Your task to perform on an android device: change alarm snooze length Image 0: 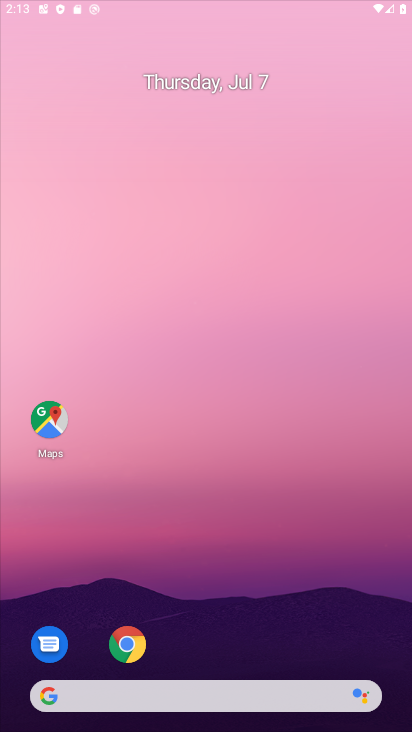
Step 0: press home button
Your task to perform on an android device: change alarm snooze length Image 1: 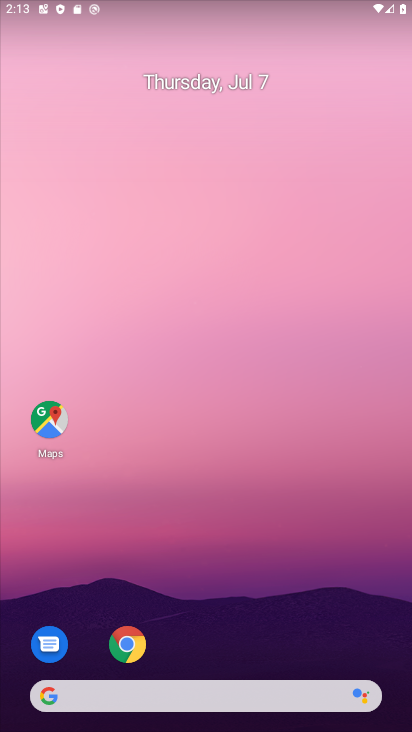
Step 1: drag from (246, 665) to (186, 235)
Your task to perform on an android device: change alarm snooze length Image 2: 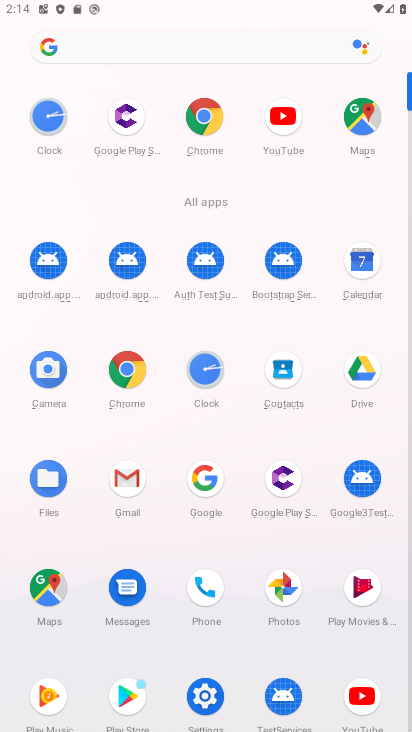
Step 2: click (196, 371)
Your task to perform on an android device: change alarm snooze length Image 3: 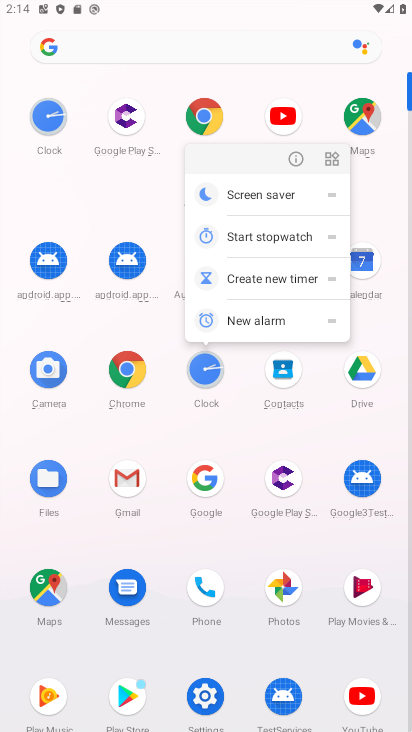
Step 3: click (211, 370)
Your task to perform on an android device: change alarm snooze length Image 4: 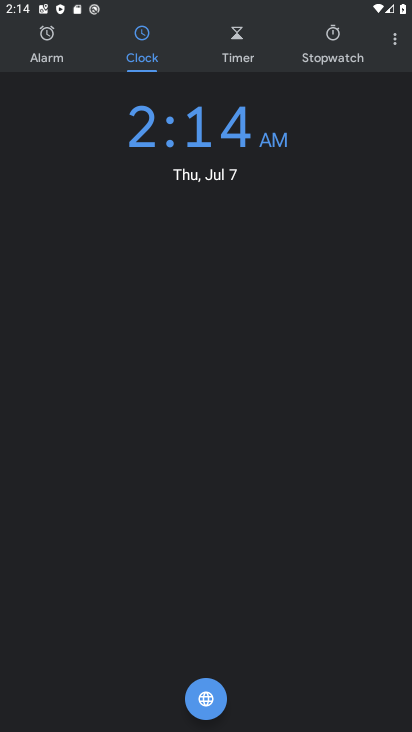
Step 4: click (393, 40)
Your task to perform on an android device: change alarm snooze length Image 5: 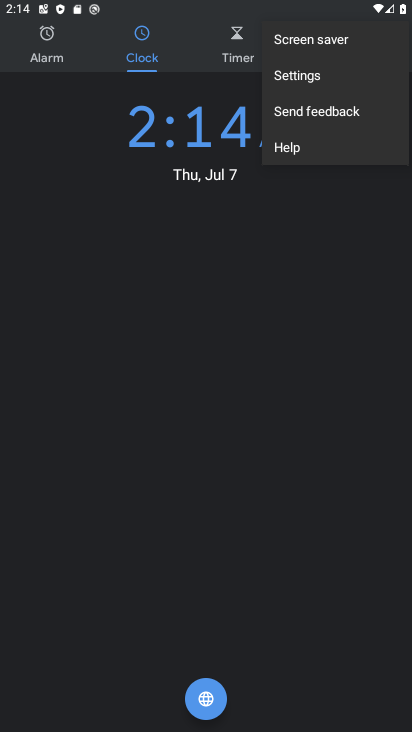
Step 5: click (299, 78)
Your task to perform on an android device: change alarm snooze length Image 6: 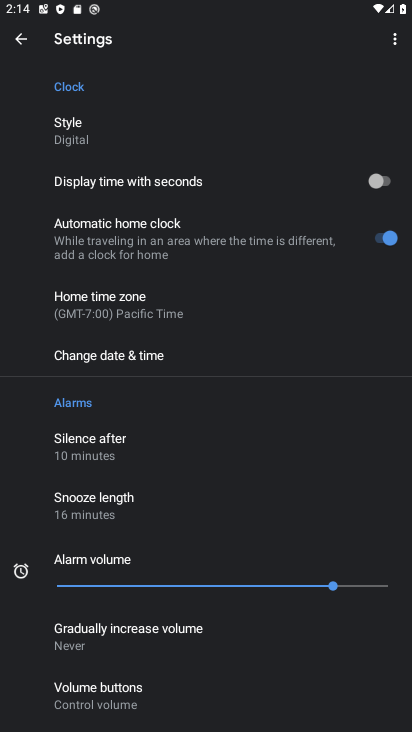
Step 6: click (90, 501)
Your task to perform on an android device: change alarm snooze length Image 7: 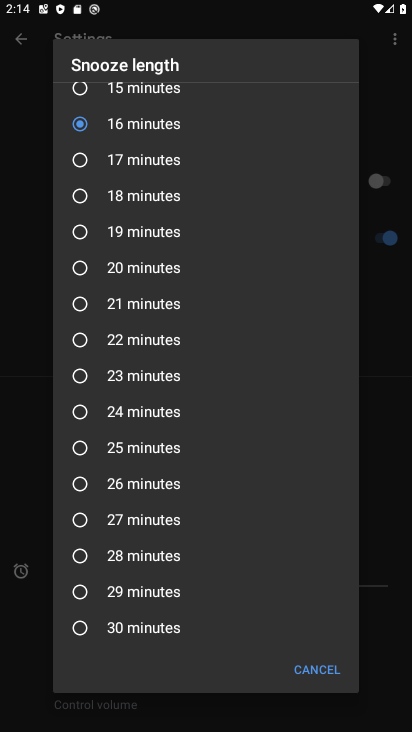
Step 7: click (80, 88)
Your task to perform on an android device: change alarm snooze length Image 8: 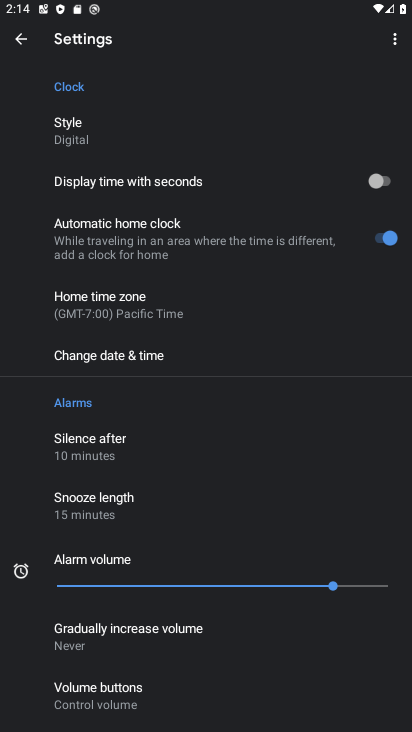
Step 8: task complete